Your task to perform on an android device: Open notification settings Image 0: 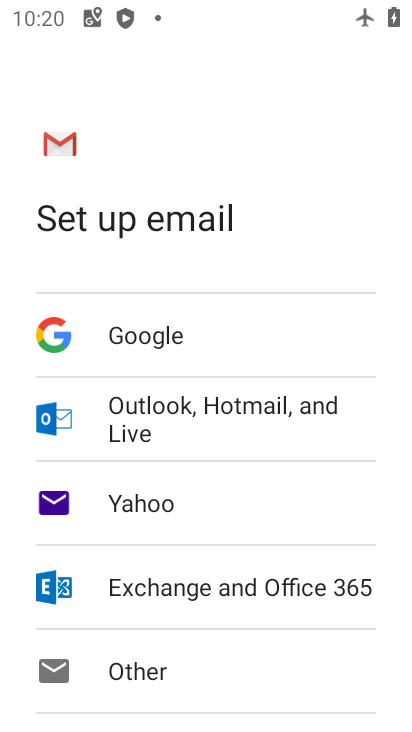
Step 0: press home button
Your task to perform on an android device: Open notification settings Image 1: 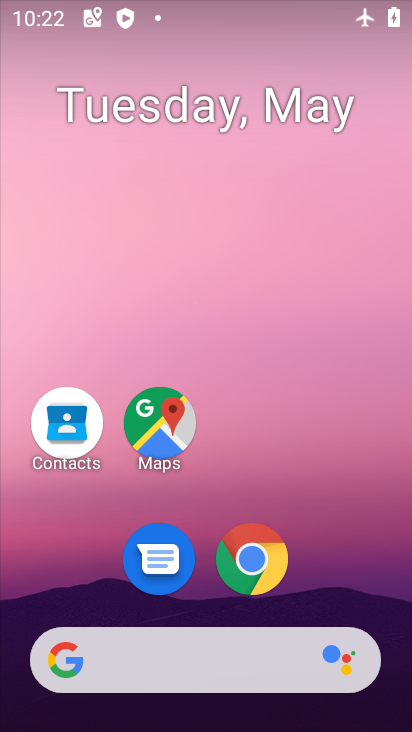
Step 1: drag from (338, 591) to (241, 68)
Your task to perform on an android device: Open notification settings Image 2: 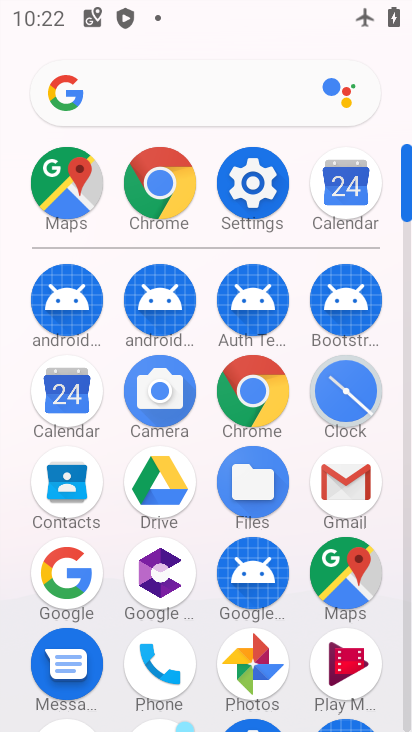
Step 2: click (271, 190)
Your task to perform on an android device: Open notification settings Image 3: 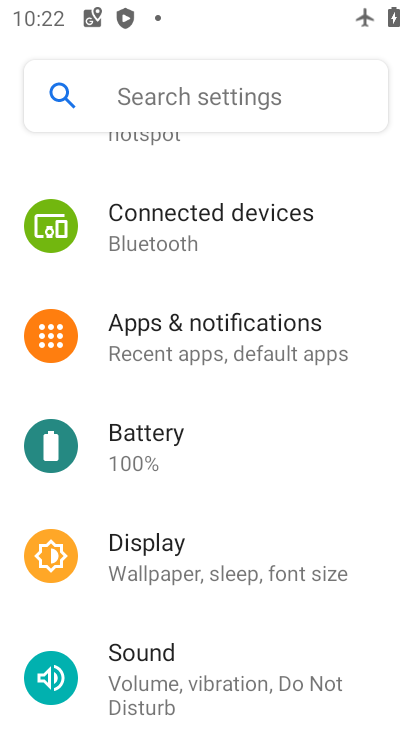
Step 3: drag from (247, 600) to (254, 400)
Your task to perform on an android device: Open notification settings Image 4: 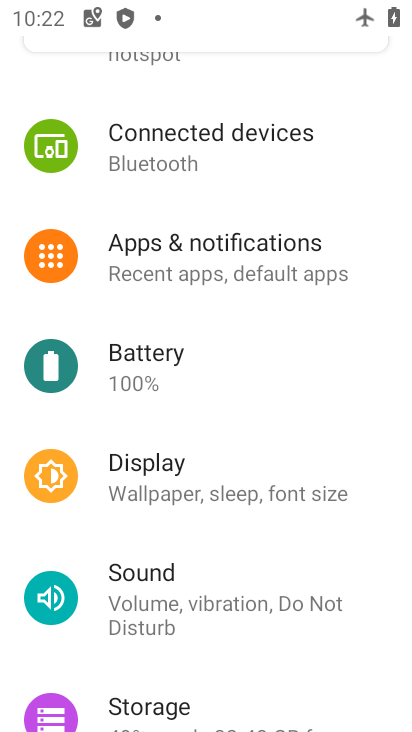
Step 4: drag from (253, 584) to (254, 418)
Your task to perform on an android device: Open notification settings Image 5: 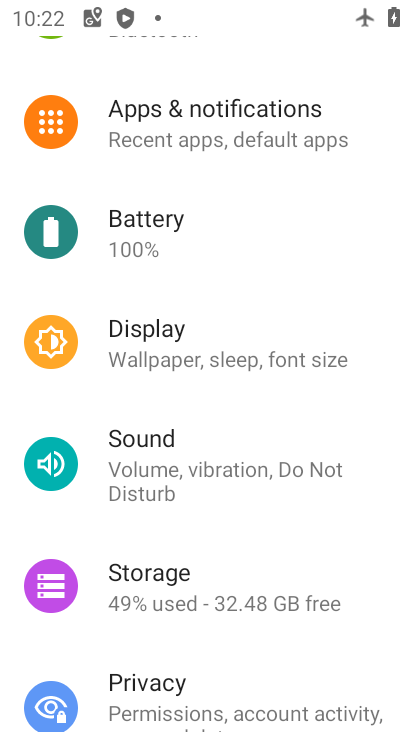
Step 5: drag from (253, 638) to (251, 412)
Your task to perform on an android device: Open notification settings Image 6: 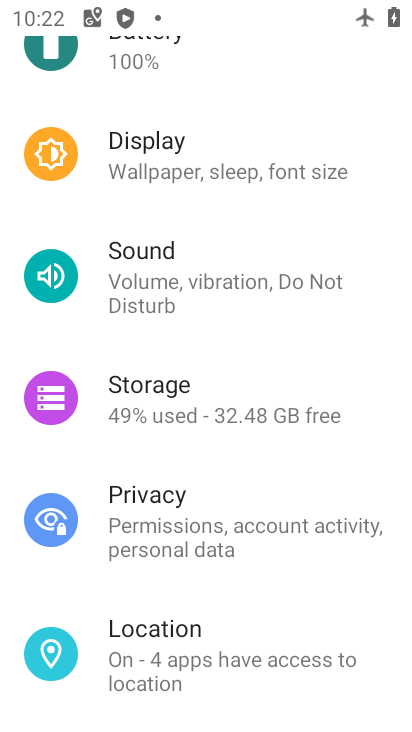
Step 6: drag from (280, 684) to (276, 417)
Your task to perform on an android device: Open notification settings Image 7: 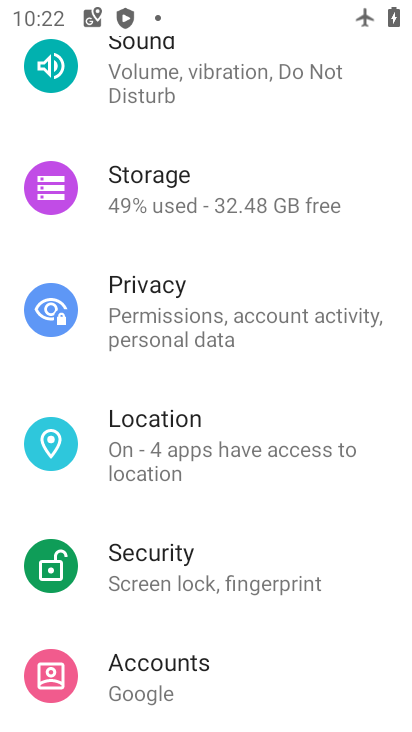
Step 7: drag from (272, 314) to (304, 611)
Your task to perform on an android device: Open notification settings Image 8: 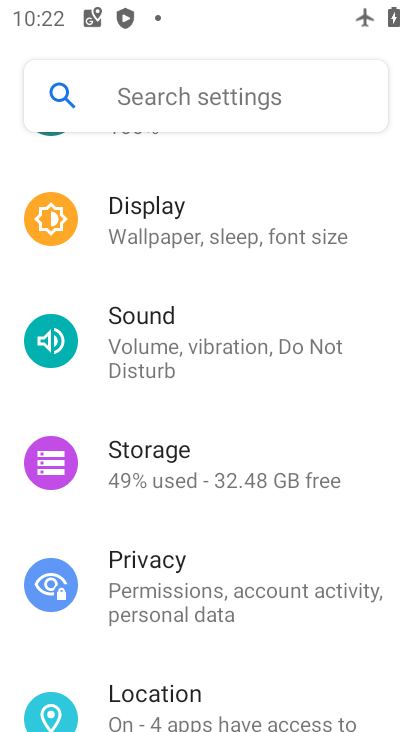
Step 8: drag from (272, 190) to (294, 505)
Your task to perform on an android device: Open notification settings Image 9: 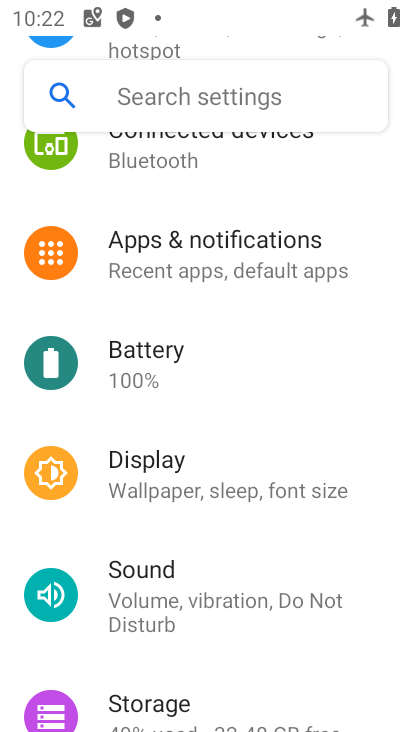
Step 9: click (257, 284)
Your task to perform on an android device: Open notification settings Image 10: 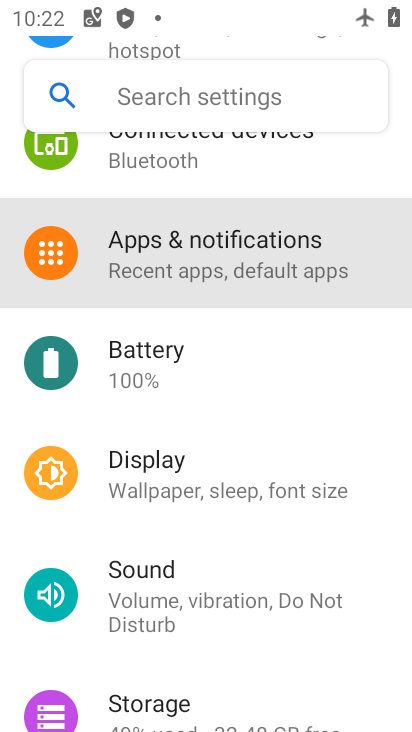
Step 10: task complete